Your task to perform on an android device: empty trash in google photos Image 0: 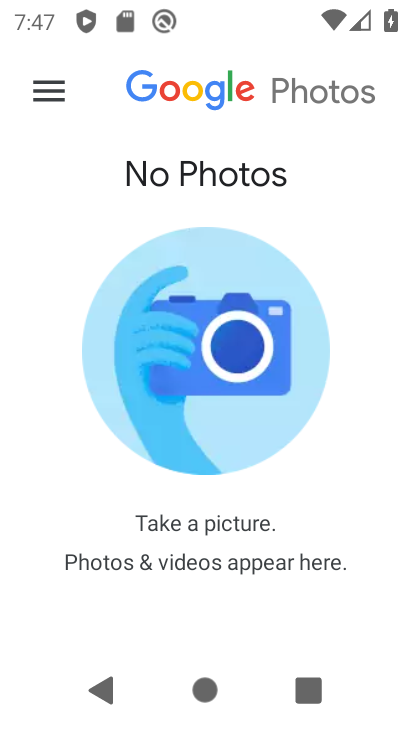
Step 0: click (52, 92)
Your task to perform on an android device: empty trash in google photos Image 1: 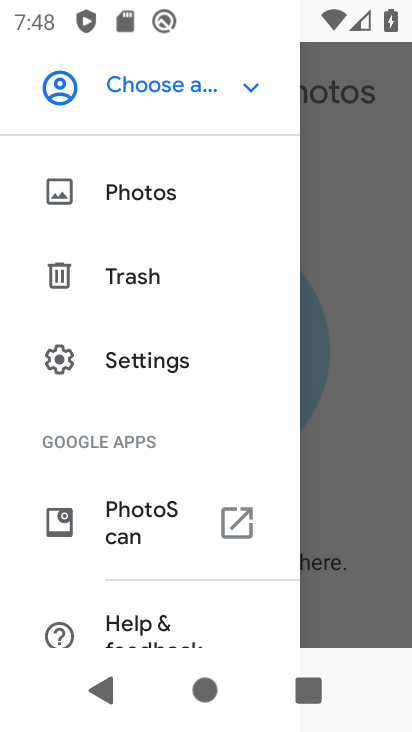
Step 1: click (140, 289)
Your task to perform on an android device: empty trash in google photos Image 2: 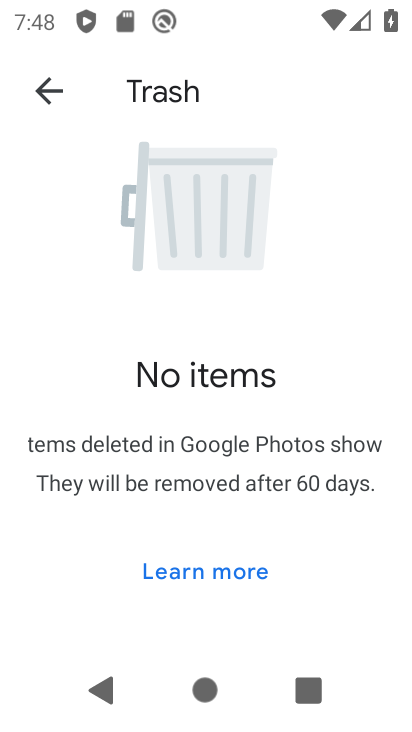
Step 2: task complete